Your task to perform on an android device: What's on my calendar today? Image 0: 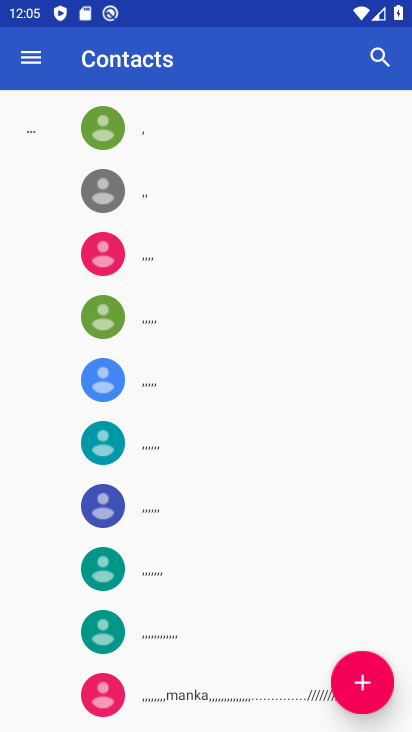
Step 0: press home button
Your task to perform on an android device: What's on my calendar today? Image 1: 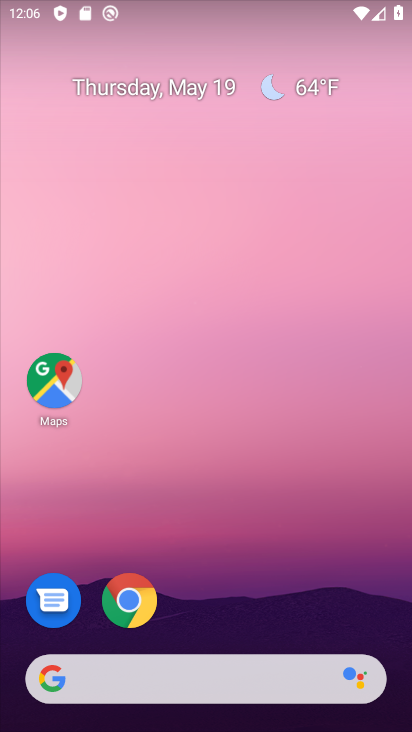
Step 1: drag from (212, 666) to (193, 0)
Your task to perform on an android device: What's on my calendar today? Image 2: 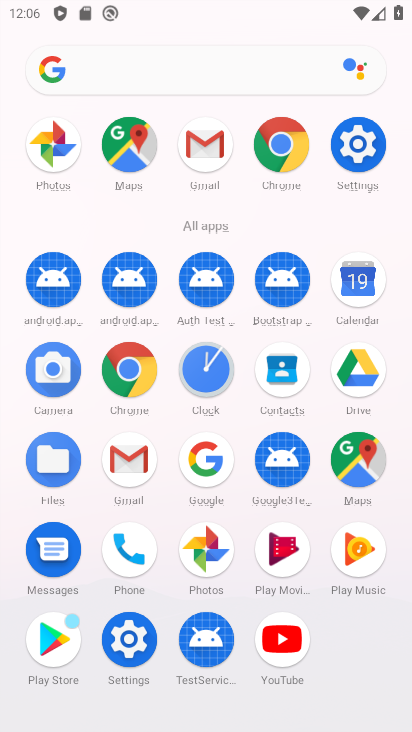
Step 2: click (367, 282)
Your task to perform on an android device: What's on my calendar today? Image 3: 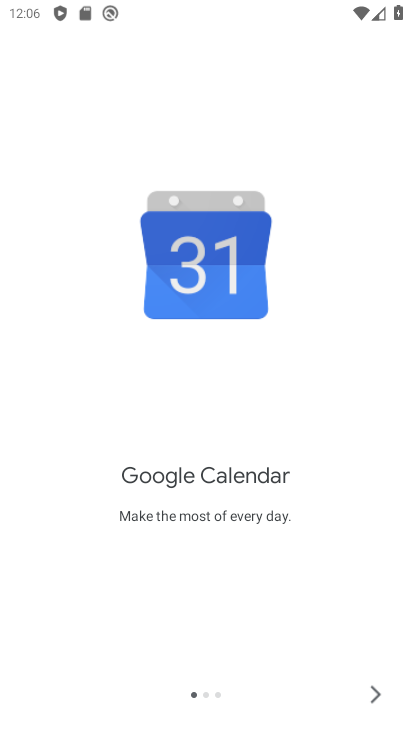
Step 3: click (370, 695)
Your task to perform on an android device: What's on my calendar today? Image 4: 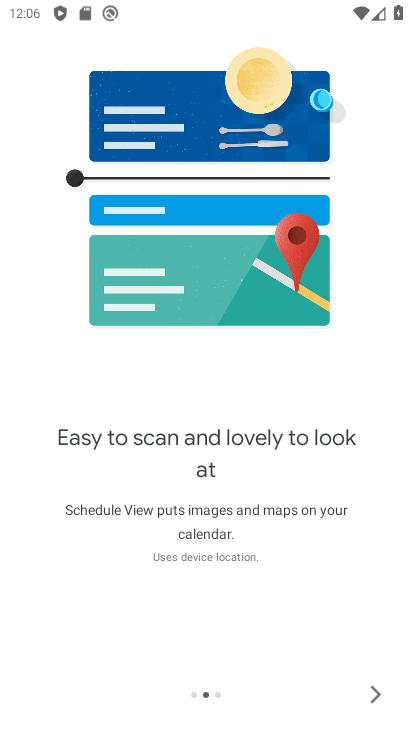
Step 4: click (368, 691)
Your task to perform on an android device: What's on my calendar today? Image 5: 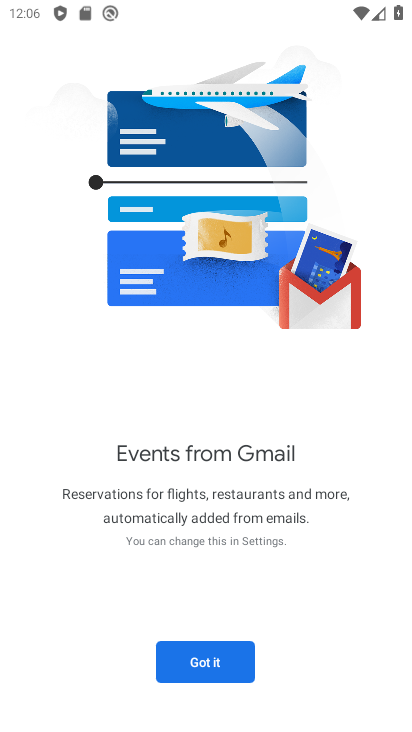
Step 5: click (187, 661)
Your task to perform on an android device: What's on my calendar today? Image 6: 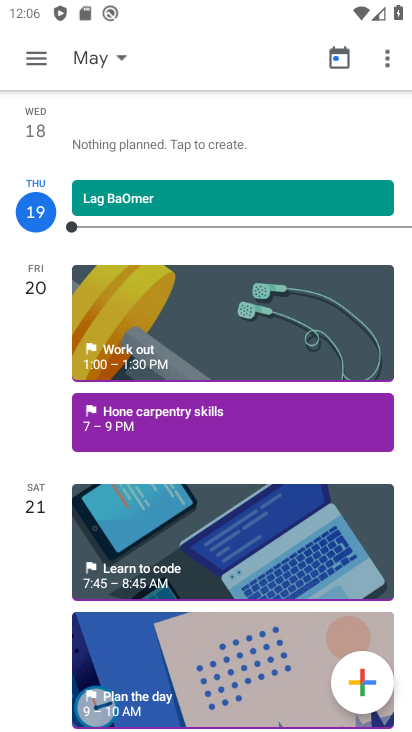
Step 6: click (39, 200)
Your task to perform on an android device: What's on my calendar today? Image 7: 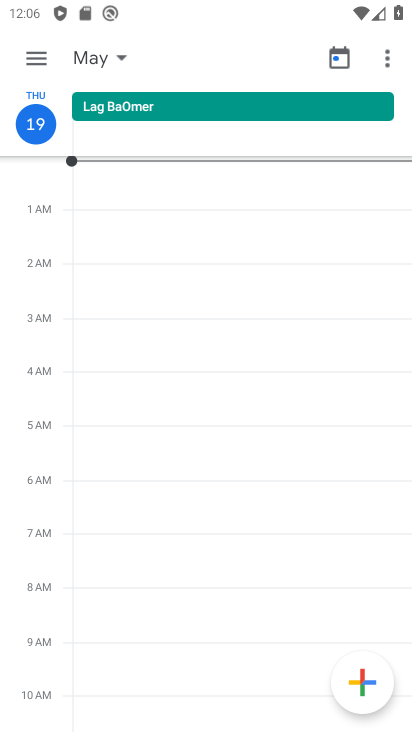
Step 7: task complete